Your task to perform on an android device: uninstall "Google Photos" Image 0: 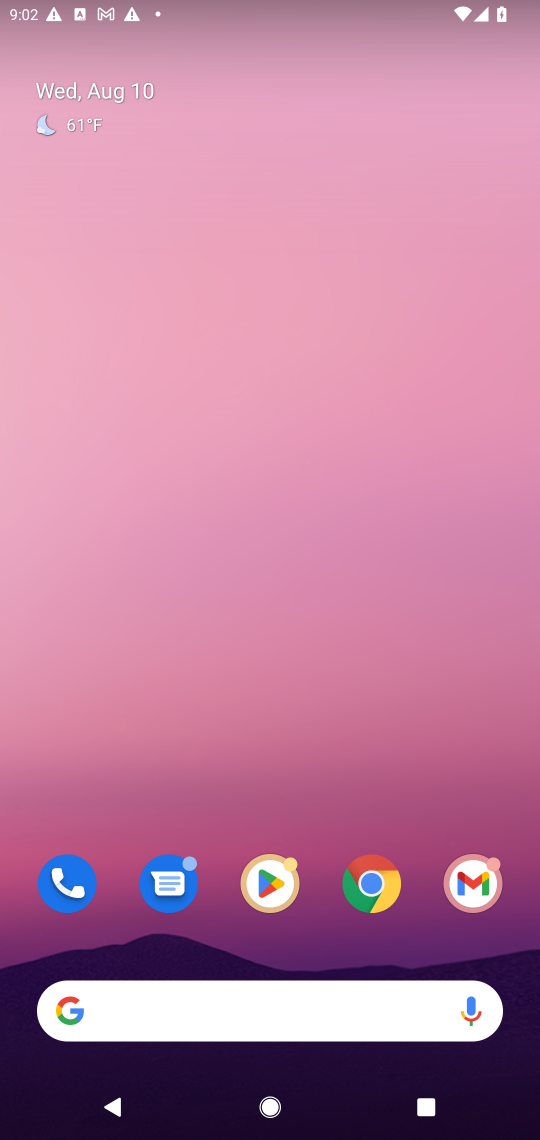
Step 0: click (278, 892)
Your task to perform on an android device: uninstall "Google Photos" Image 1: 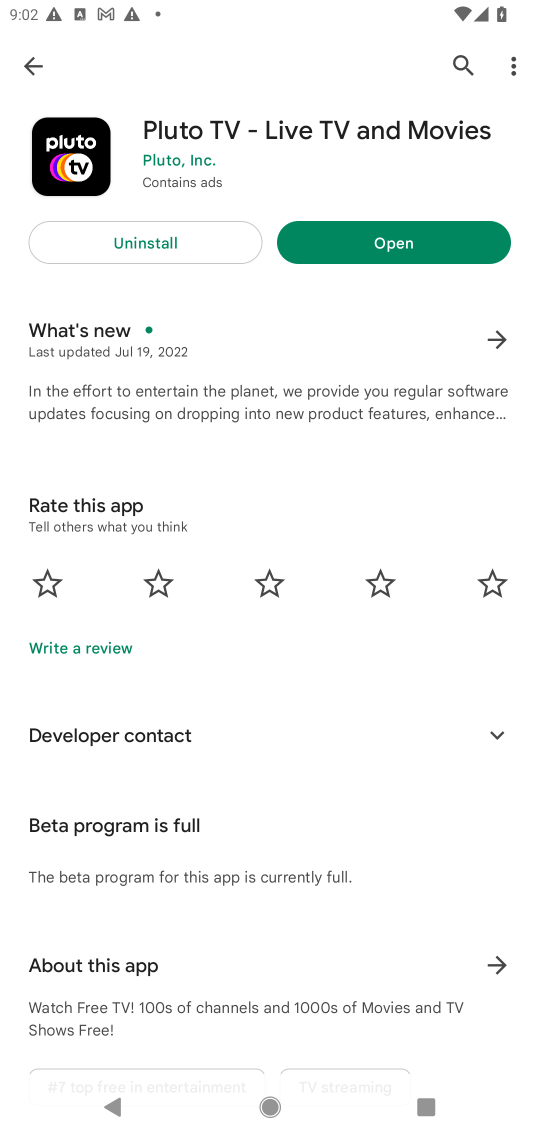
Step 1: click (452, 65)
Your task to perform on an android device: uninstall "Google Photos" Image 2: 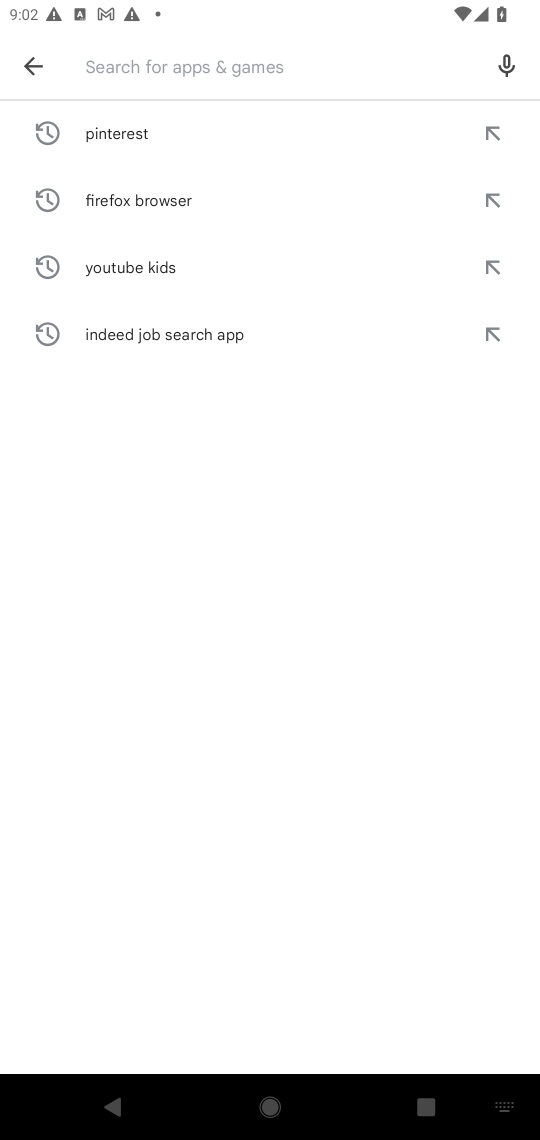
Step 2: type "Google Photos"
Your task to perform on an android device: uninstall "Google Photos" Image 3: 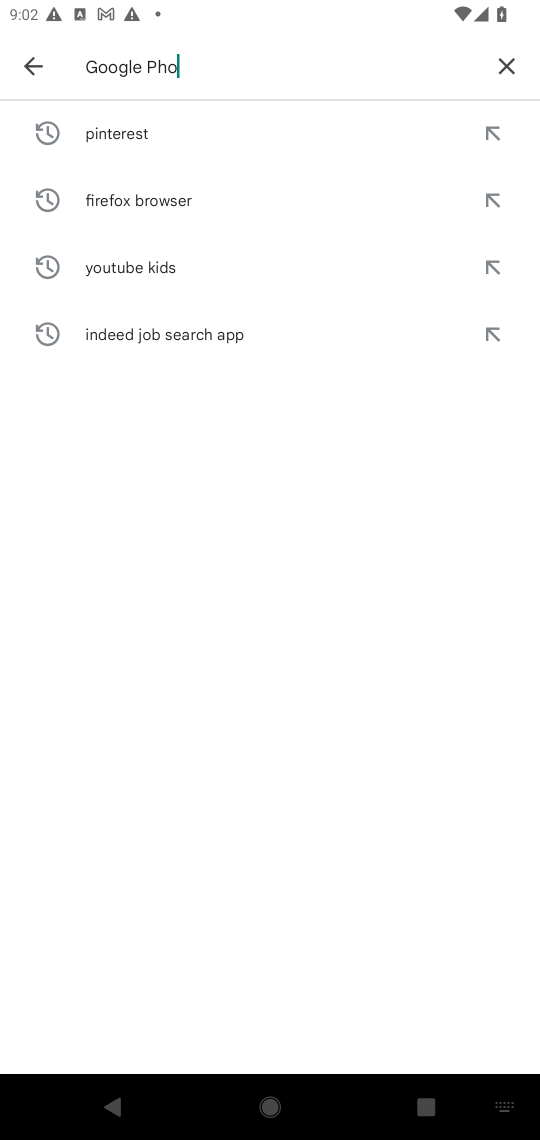
Step 3: type ""
Your task to perform on an android device: uninstall "Google Photos" Image 4: 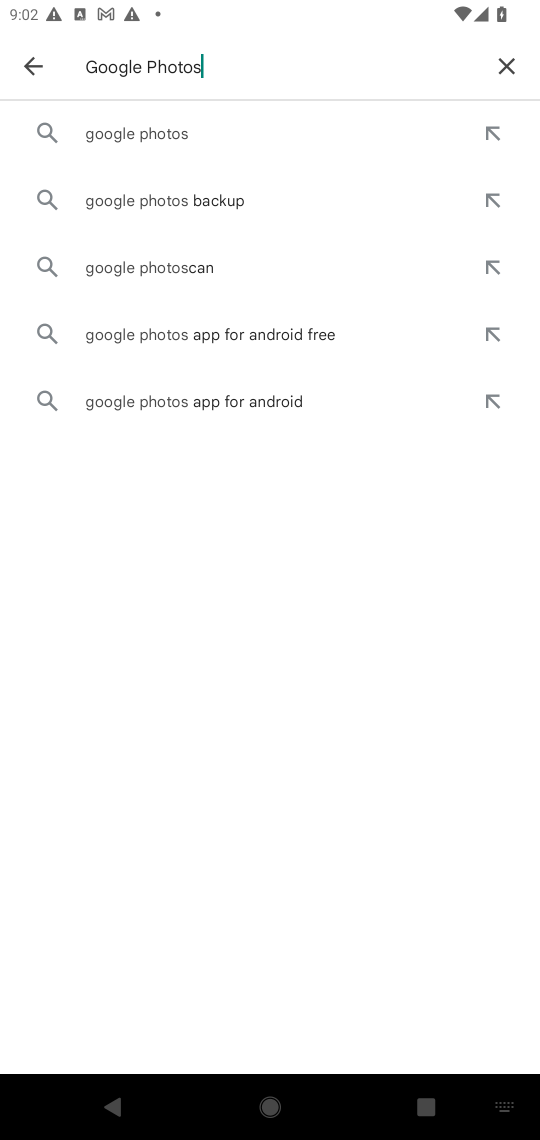
Step 4: click (181, 127)
Your task to perform on an android device: uninstall "Google Photos" Image 5: 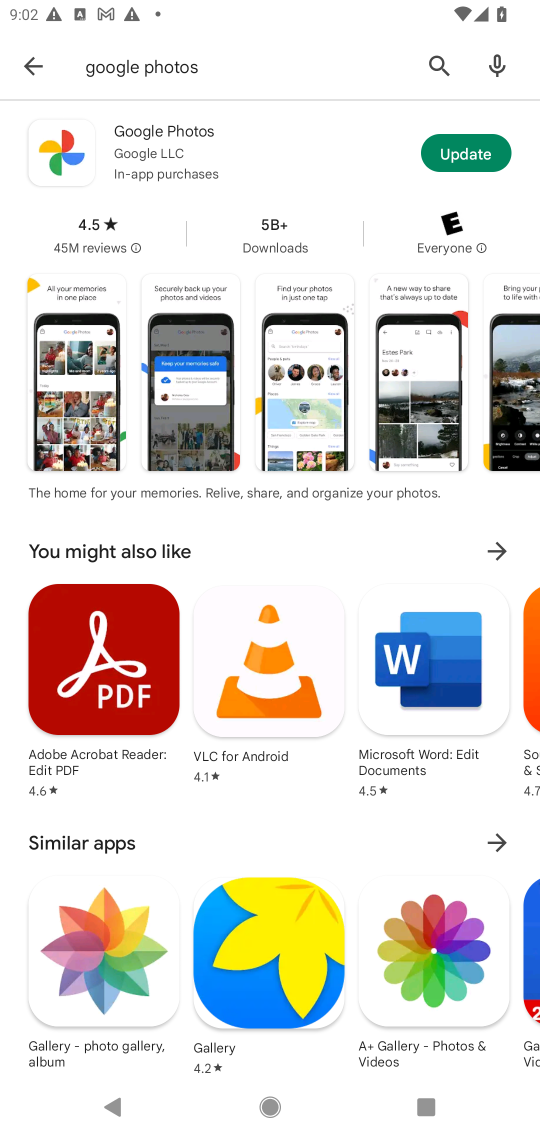
Step 5: click (297, 162)
Your task to perform on an android device: uninstall "Google Photos" Image 6: 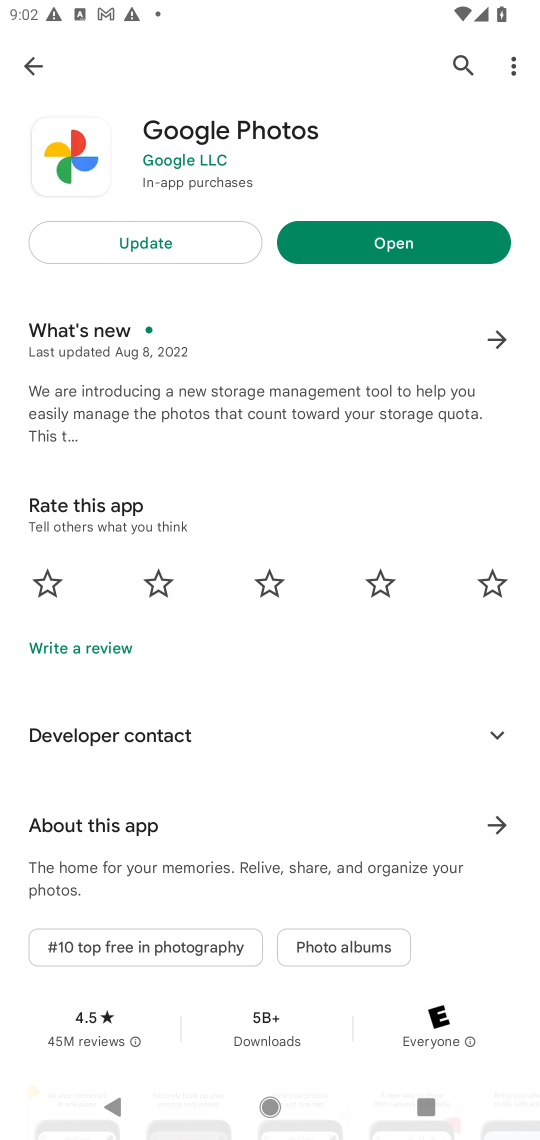
Step 6: click (174, 245)
Your task to perform on an android device: uninstall "Google Photos" Image 7: 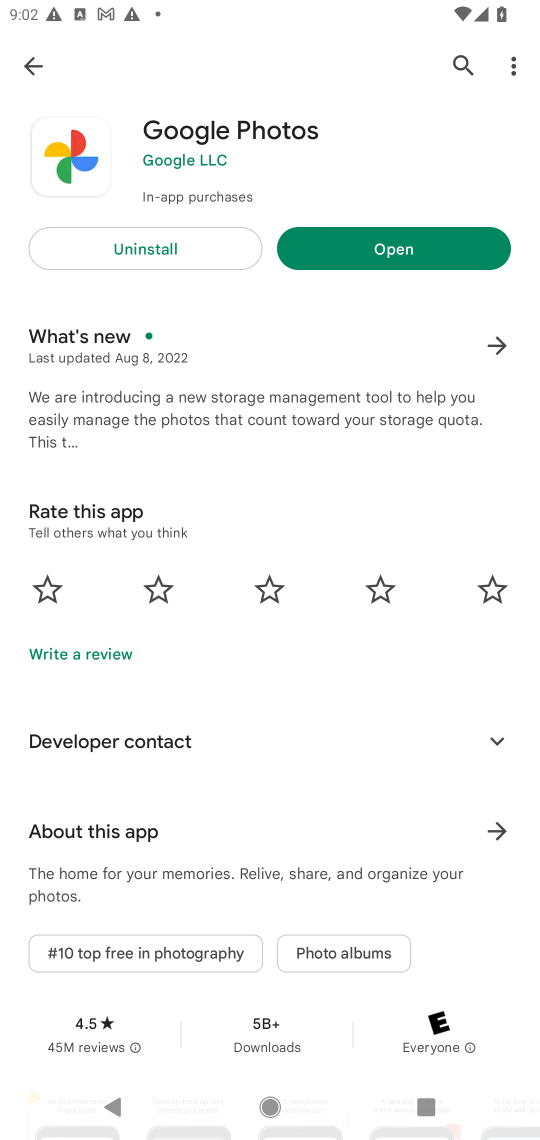
Step 7: click (174, 245)
Your task to perform on an android device: uninstall "Google Photos" Image 8: 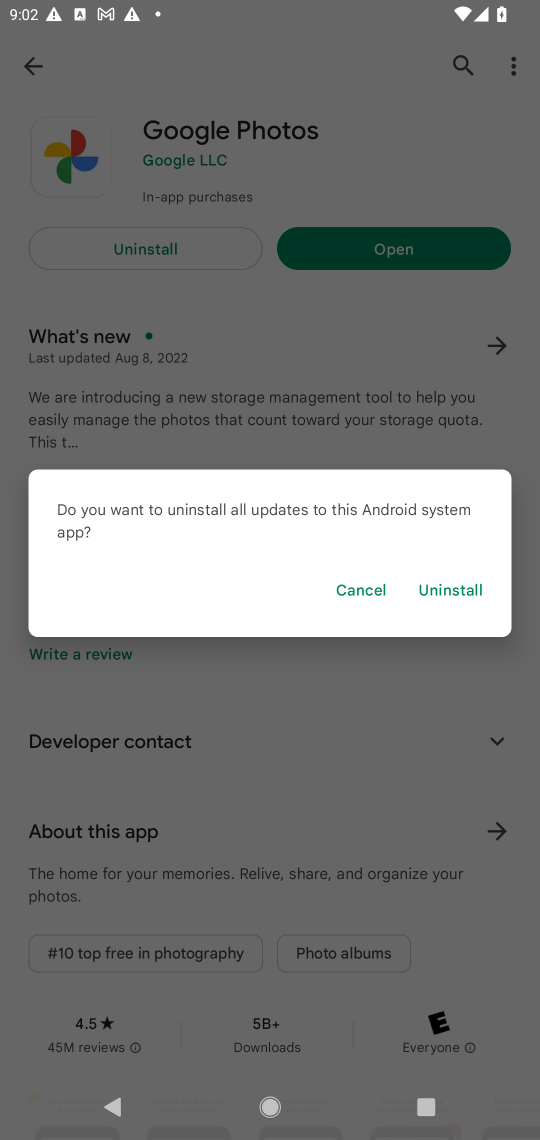
Step 8: click (468, 582)
Your task to perform on an android device: uninstall "Google Photos" Image 9: 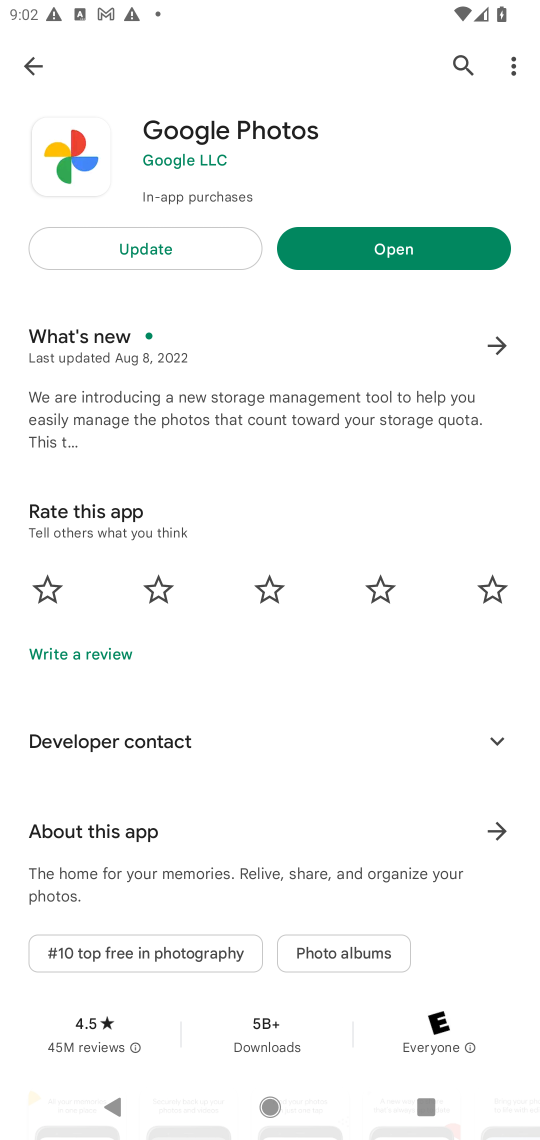
Step 9: click (195, 254)
Your task to perform on an android device: uninstall "Google Photos" Image 10: 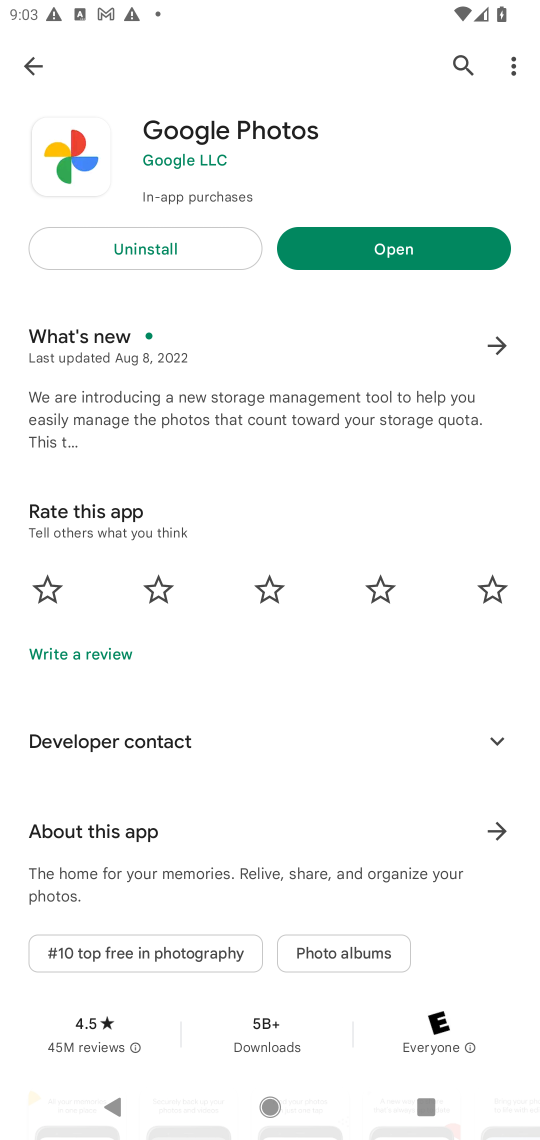
Step 10: click (195, 254)
Your task to perform on an android device: uninstall "Google Photos" Image 11: 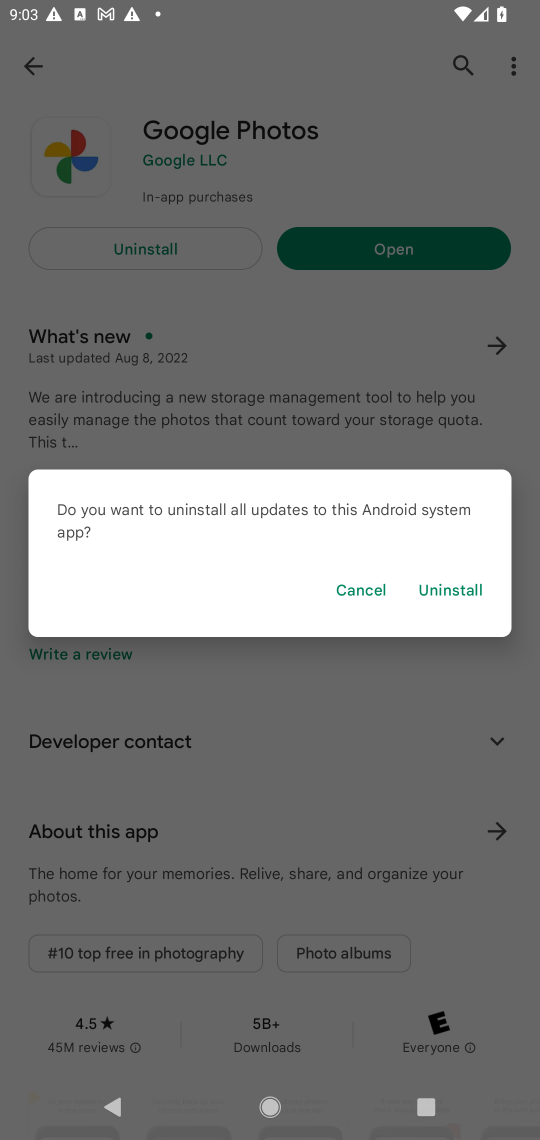
Step 11: click (451, 579)
Your task to perform on an android device: uninstall "Google Photos" Image 12: 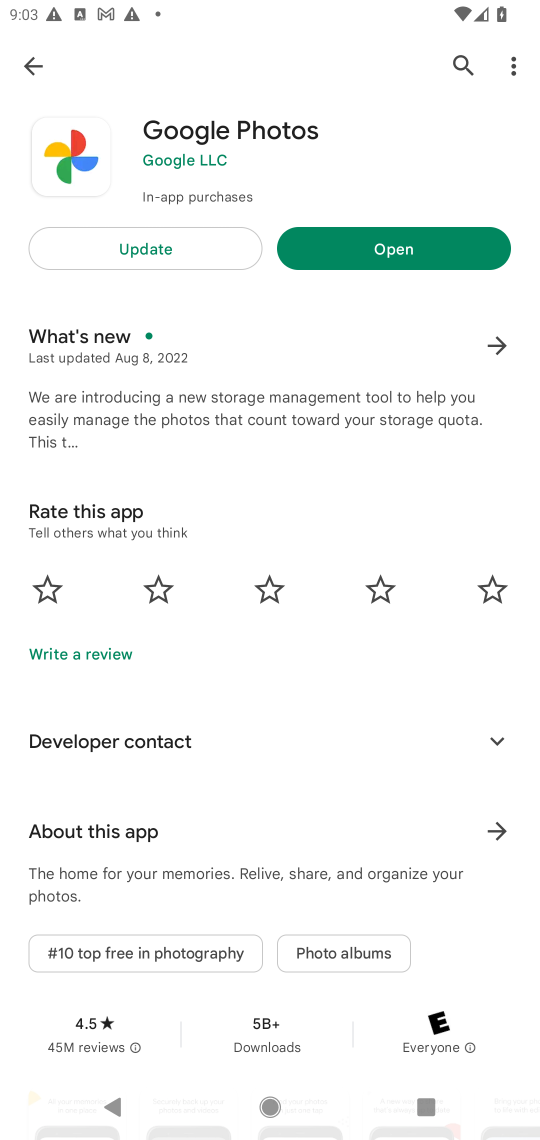
Step 12: task complete